Your task to perform on an android device: Check the news Image 0: 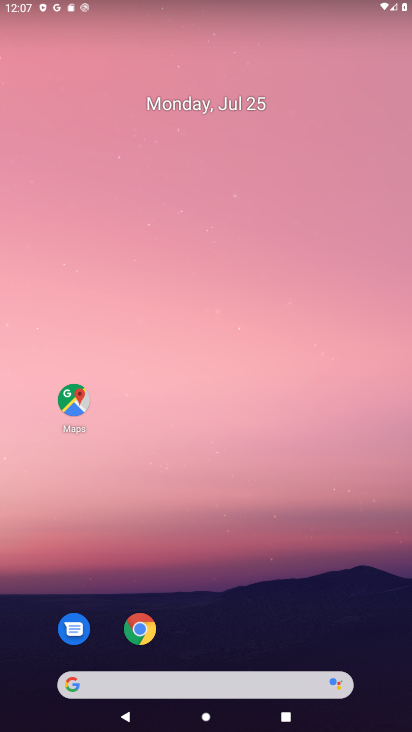
Step 0: drag from (322, 558) to (313, 103)
Your task to perform on an android device: Check the news Image 1: 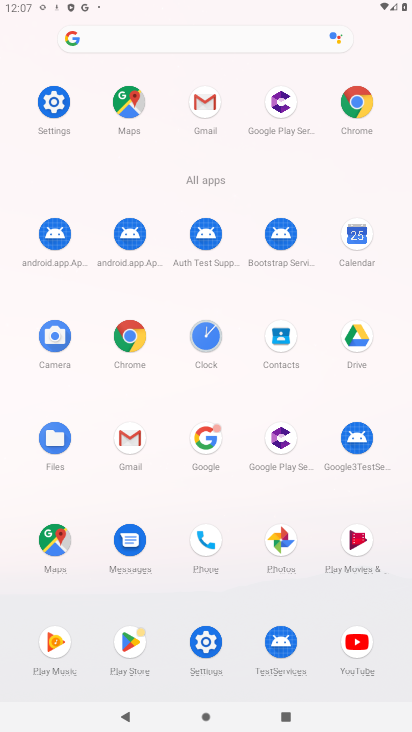
Step 1: click (356, 97)
Your task to perform on an android device: Check the news Image 2: 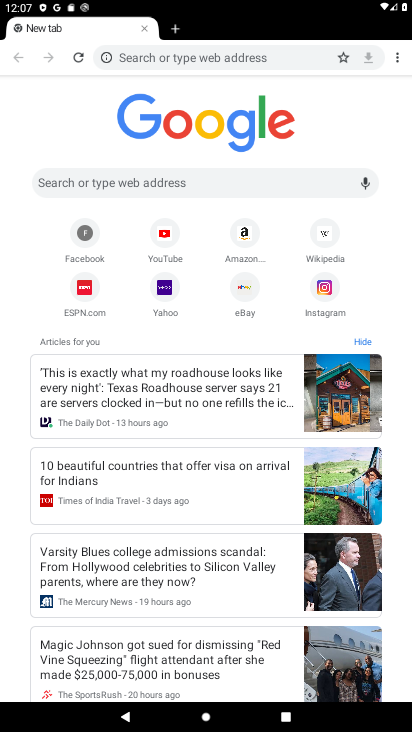
Step 2: click (143, 58)
Your task to perform on an android device: Check the news Image 3: 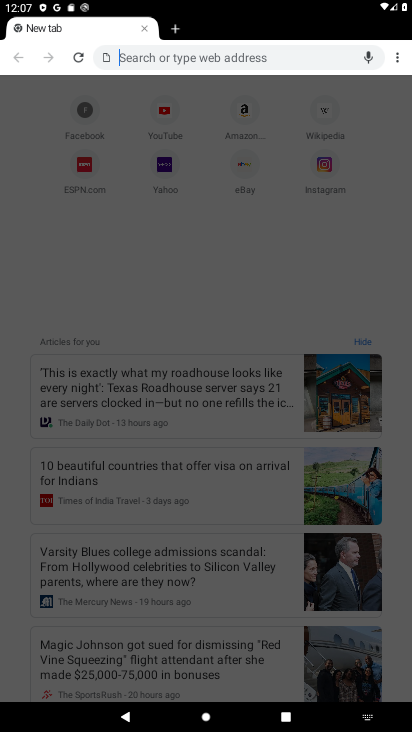
Step 3: type "news"
Your task to perform on an android device: Check the news Image 4: 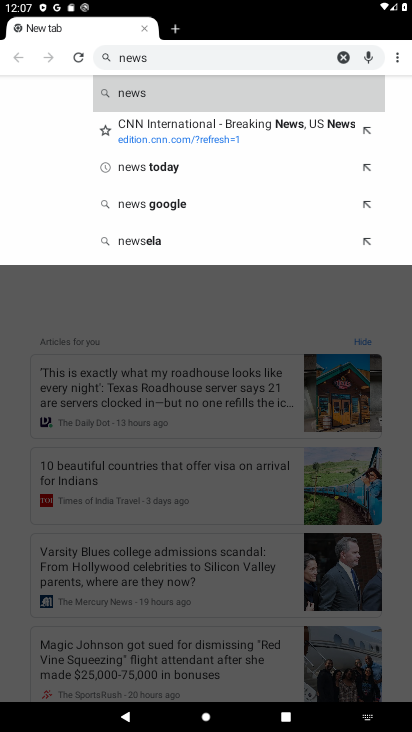
Step 4: click (169, 87)
Your task to perform on an android device: Check the news Image 5: 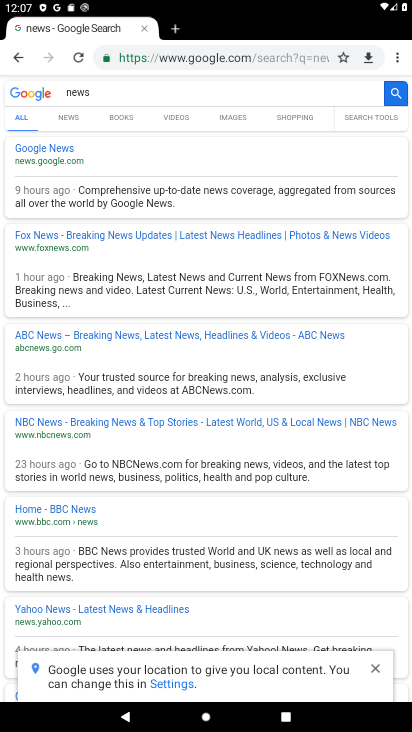
Step 5: click (70, 153)
Your task to perform on an android device: Check the news Image 6: 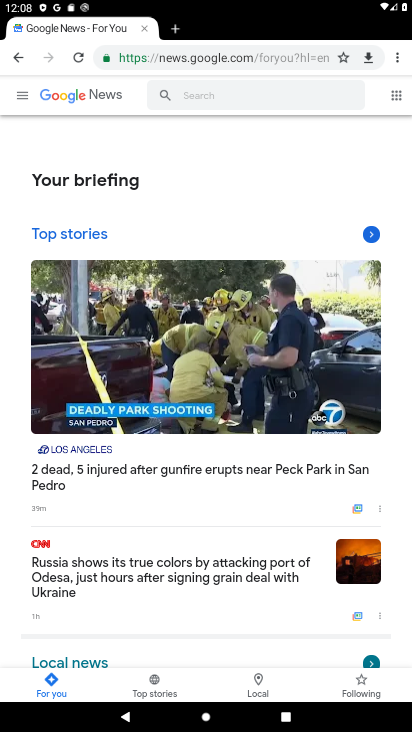
Step 6: task complete